Your task to perform on an android device: install app "Skype" Image 0: 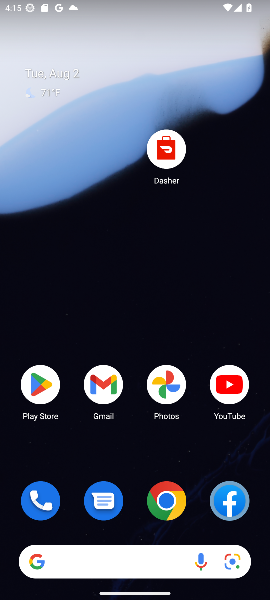
Step 0: click (46, 392)
Your task to perform on an android device: install app "Skype" Image 1: 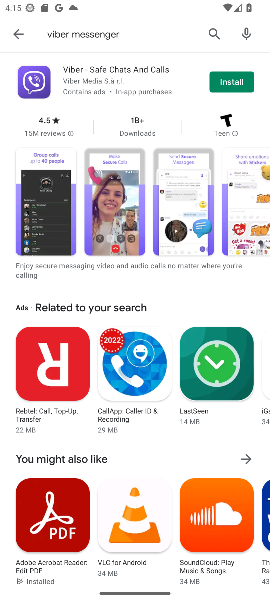
Step 1: click (208, 32)
Your task to perform on an android device: install app "Skype" Image 2: 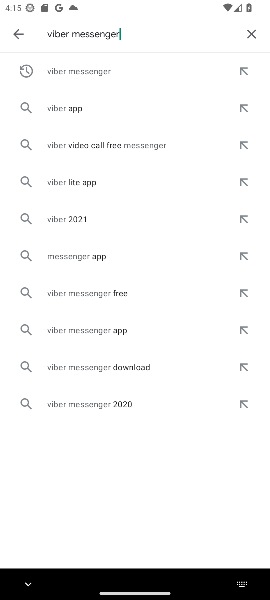
Step 2: click (248, 38)
Your task to perform on an android device: install app "Skype" Image 3: 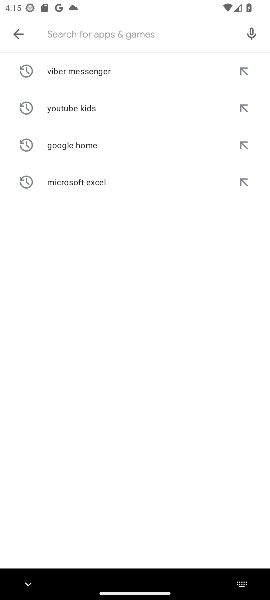
Step 3: type "Skype"
Your task to perform on an android device: install app "Skype" Image 4: 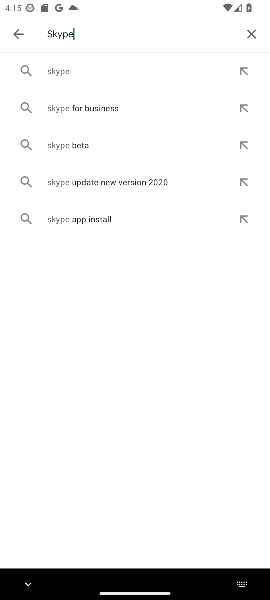
Step 4: click (54, 70)
Your task to perform on an android device: install app "Skype" Image 5: 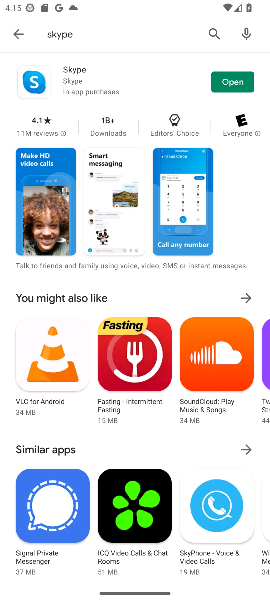
Step 5: task complete